Your task to perform on an android device: View the shopping cart on ebay. Image 0: 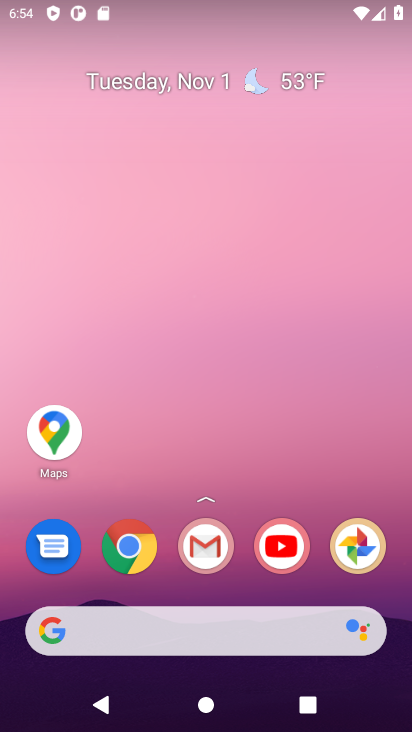
Step 0: click (132, 560)
Your task to perform on an android device: View the shopping cart on ebay. Image 1: 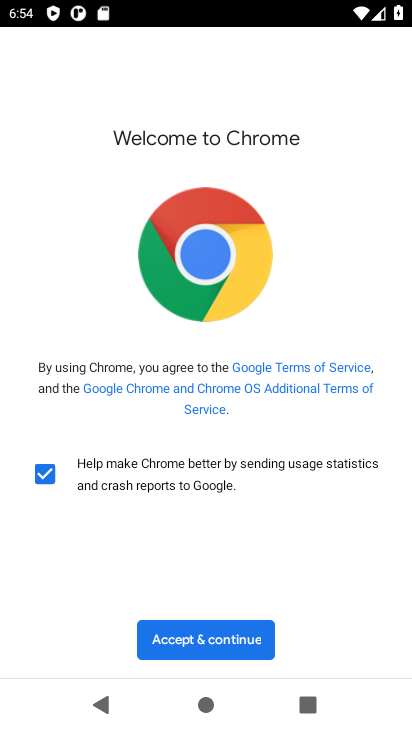
Step 1: click (199, 651)
Your task to perform on an android device: View the shopping cart on ebay. Image 2: 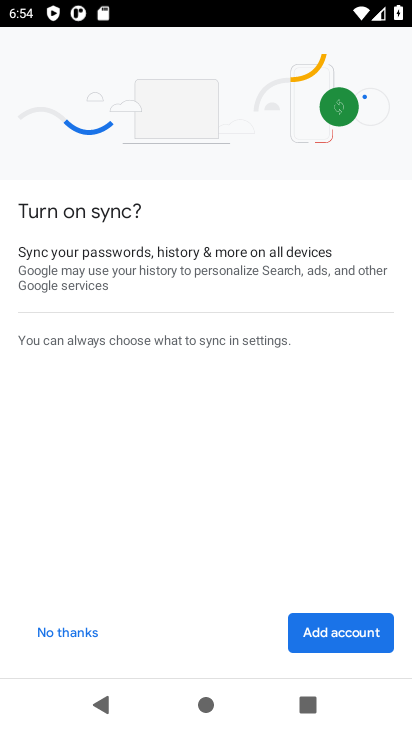
Step 2: click (60, 636)
Your task to perform on an android device: View the shopping cart on ebay. Image 3: 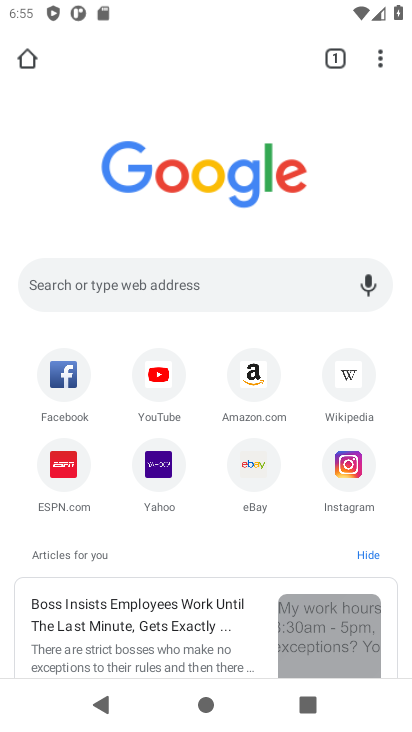
Step 3: click (128, 282)
Your task to perform on an android device: View the shopping cart on ebay. Image 4: 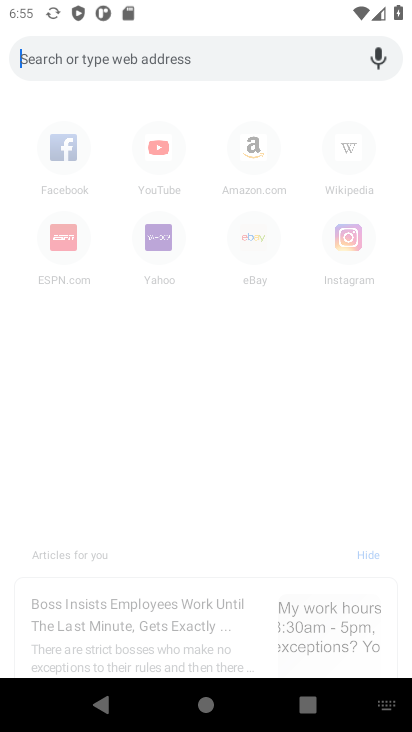
Step 4: type "ebay"
Your task to perform on an android device: View the shopping cart on ebay. Image 5: 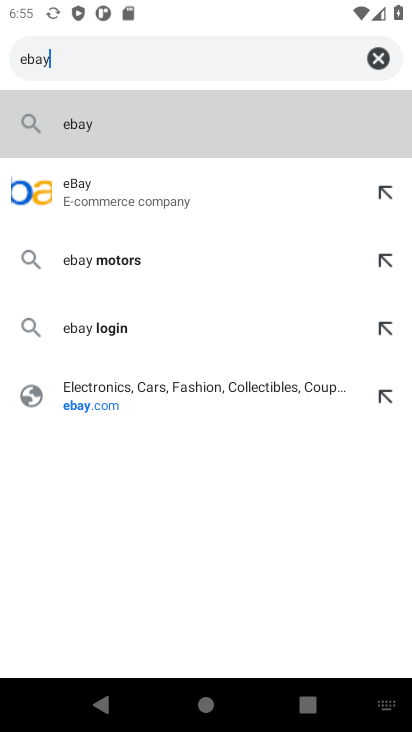
Step 5: click (72, 188)
Your task to perform on an android device: View the shopping cart on ebay. Image 6: 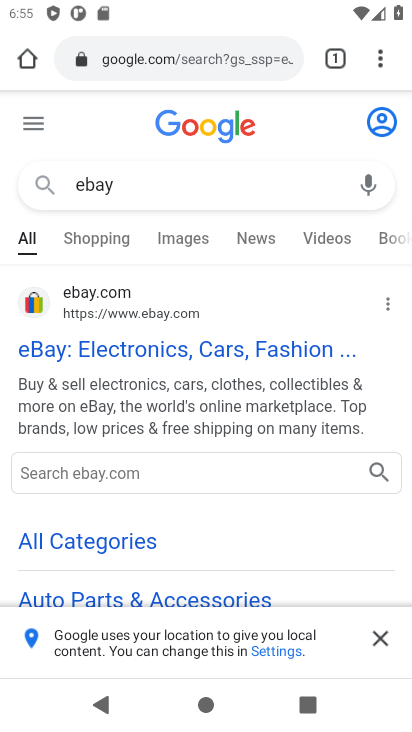
Step 6: click (122, 351)
Your task to perform on an android device: View the shopping cart on ebay. Image 7: 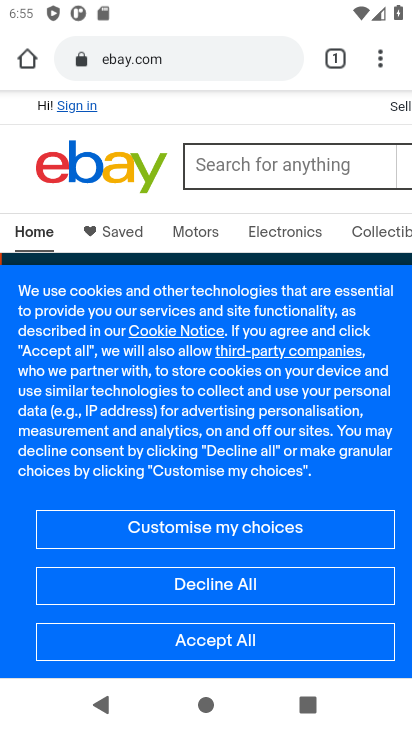
Step 7: click (241, 175)
Your task to perform on an android device: View the shopping cart on ebay. Image 8: 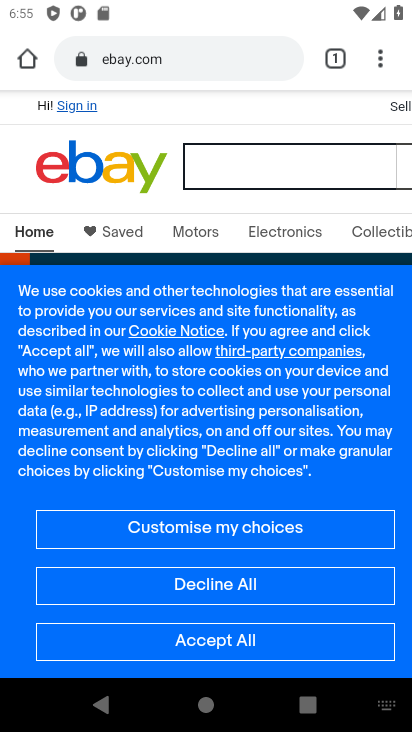
Step 8: type "shopping cart"
Your task to perform on an android device: View the shopping cart on ebay. Image 9: 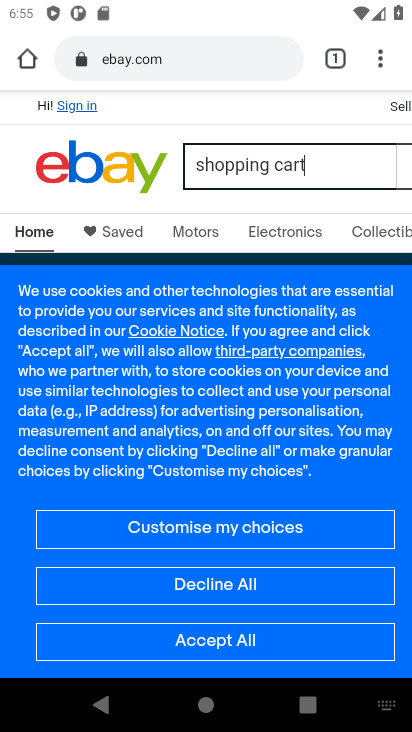
Step 9: type ""
Your task to perform on an android device: View the shopping cart on ebay. Image 10: 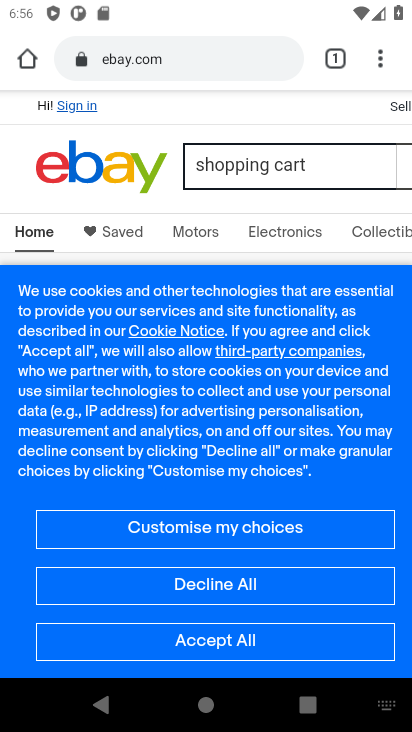
Step 10: click (231, 619)
Your task to perform on an android device: View the shopping cart on ebay. Image 11: 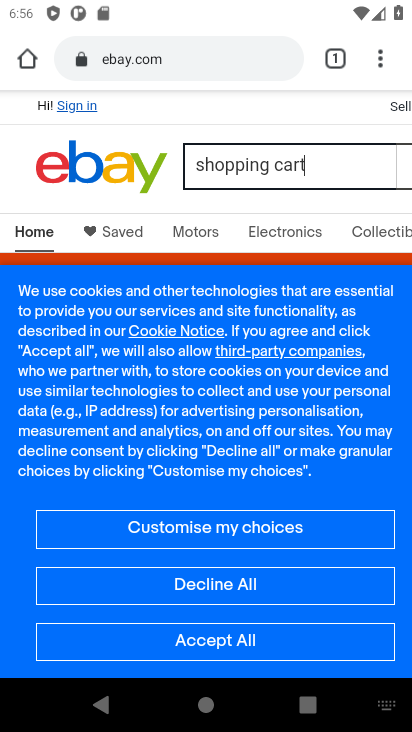
Step 11: click (195, 636)
Your task to perform on an android device: View the shopping cart on ebay. Image 12: 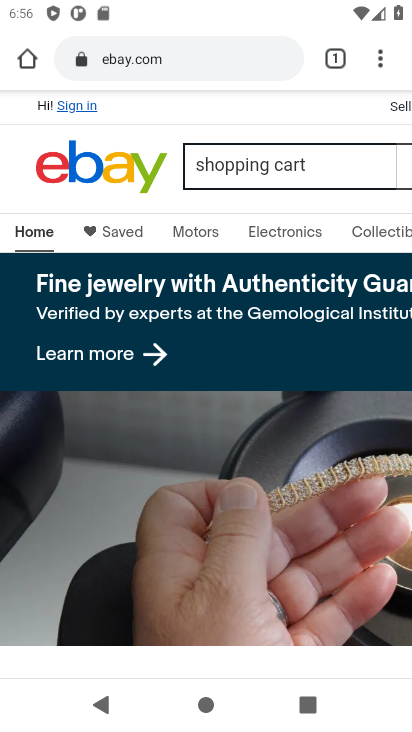
Step 12: drag from (139, 536) to (139, 608)
Your task to perform on an android device: View the shopping cart on ebay. Image 13: 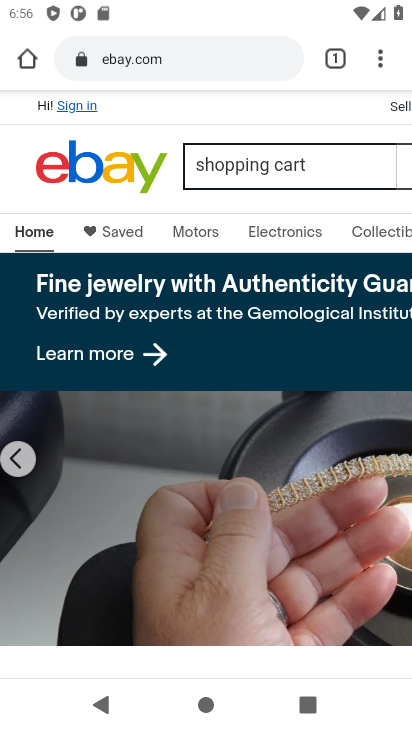
Step 13: drag from (249, 551) to (269, 253)
Your task to perform on an android device: View the shopping cart on ebay. Image 14: 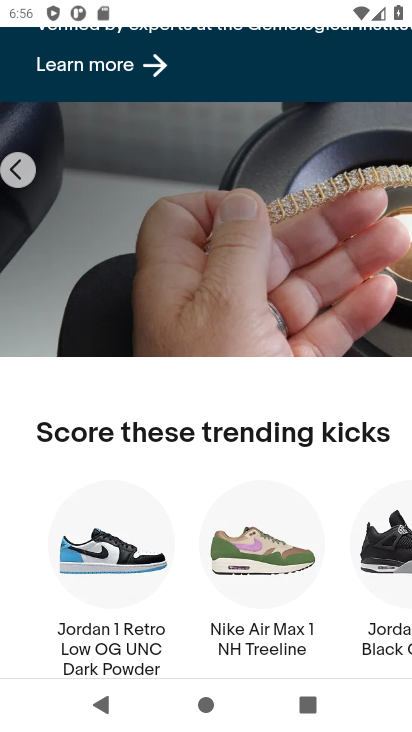
Step 14: drag from (129, 546) to (227, 252)
Your task to perform on an android device: View the shopping cart on ebay. Image 15: 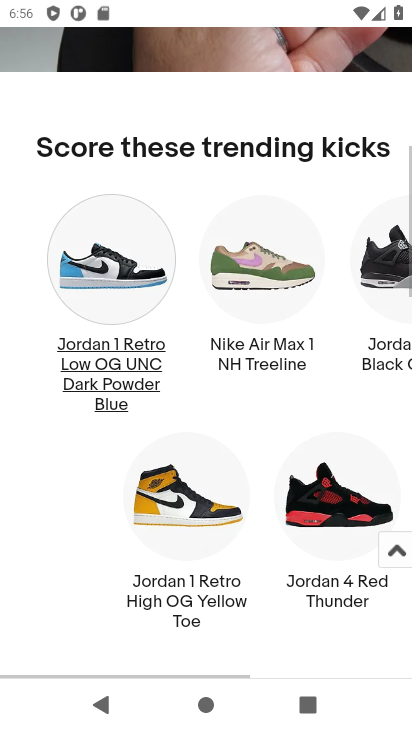
Step 15: drag from (141, 559) to (236, 279)
Your task to perform on an android device: View the shopping cart on ebay. Image 16: 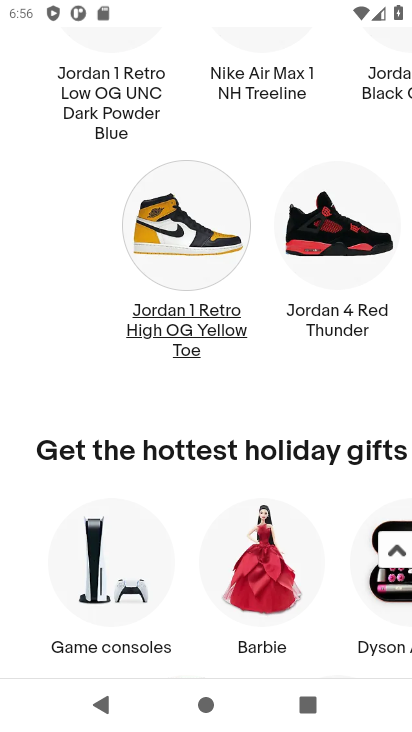
Step 16: drag from (158, 641) to (186, 322)
Your task to perform on an android device: View the shopping cart on ebay. Image 17: 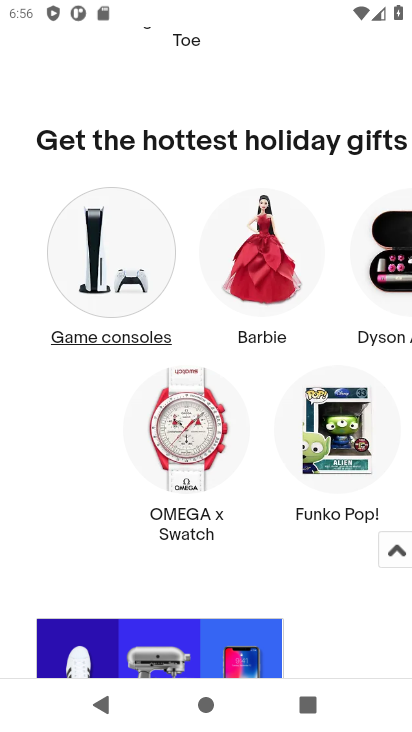
Step 17: drag from (162, 572) to (67, 638)
Your task to perform on an android device: View the shopping cart on ebay. Image 18: 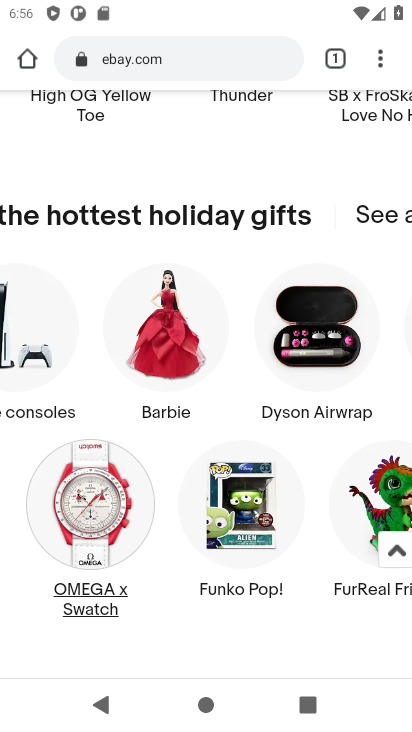
Step 18: drag from (178, 407) to (74, 628)
Your task to perform on an android device: View the shopping cart on ebay. Image 19: 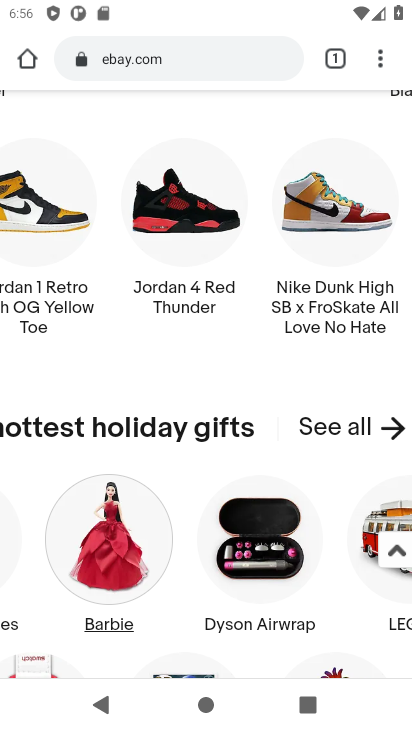
Step 19: drag from (256, 353) to (165, 715)
Your task to perform on an android device: View the shopping cart on ebay. Image 20: 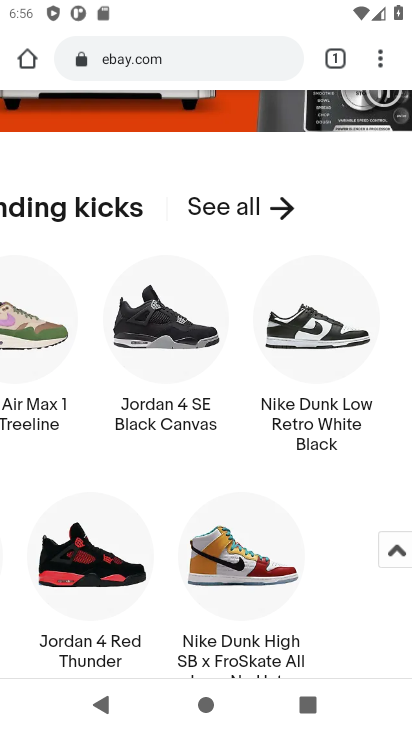
Step 20: drag from (80, 220) to (42, 620)
Your task to perform on an android device: View the shopping cart on ebay. Image 21: 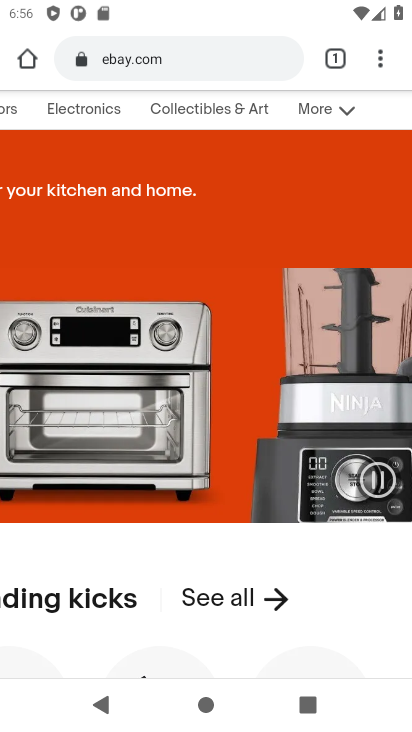
Step 21: drag from (80, 233) to (63, 521)
Your task to perform on an android device: View the shopping cart on ebay. Image 22: 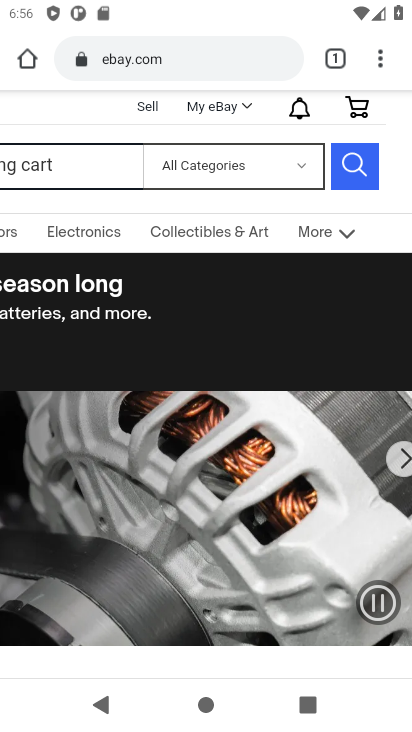
Step 22: click (361, 105)
Your task to perform on an android device: View the shopping cart on ebay. Image 23: 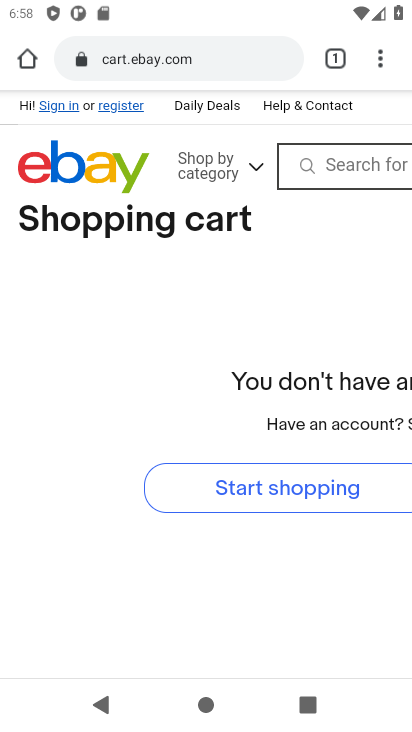
Step 23: task complete